Your task to perform on an android device: set the timer Image 0: 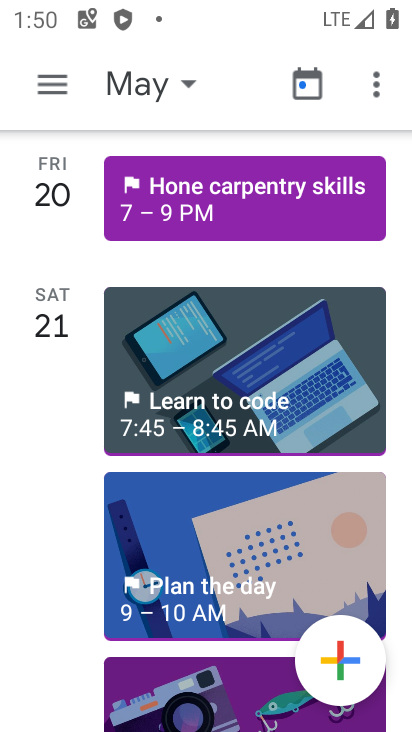
Step 0: press home button
Your task to perform on an android device: set the timer Image 1: 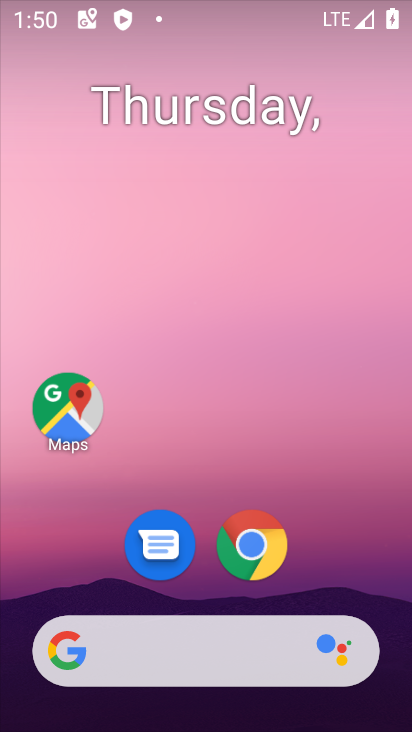
Step 1: click (401, 630)
Your task to perform on an android device: set the timer Image 2: 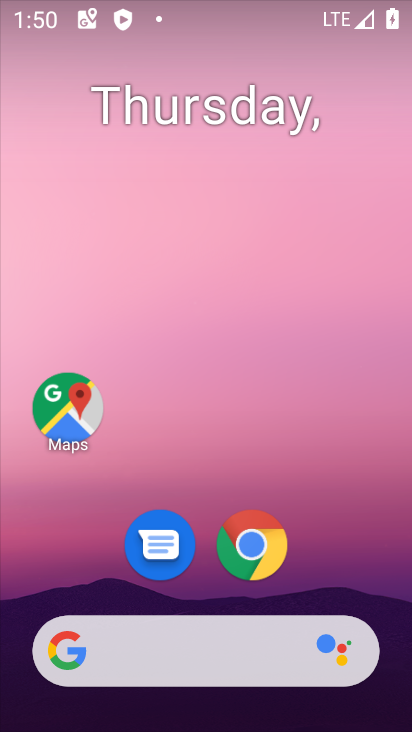
Step 2: drag from (252, 721) to (173, 23)
Your task to perform on an android device: set the timer Image 3: 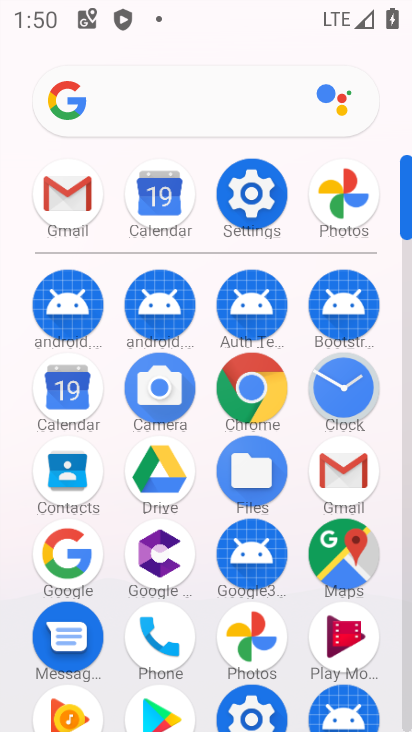
Step 3: click (360, 397)
Your task to perform on an android device: set the timer Image 4: 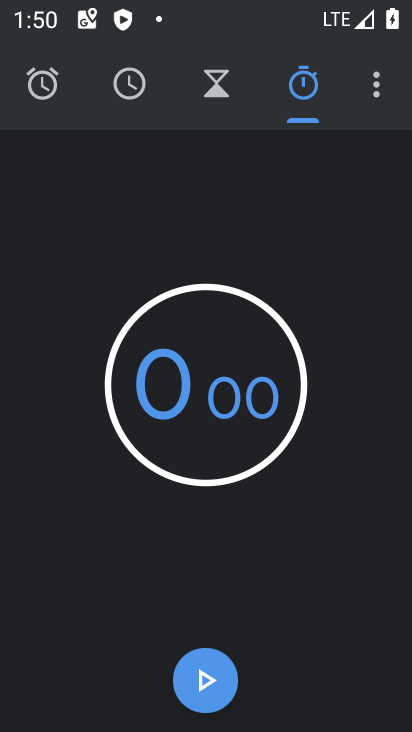
Step 4: click (211, 81)
Your task to perform on an android device: set the timer Image 5: 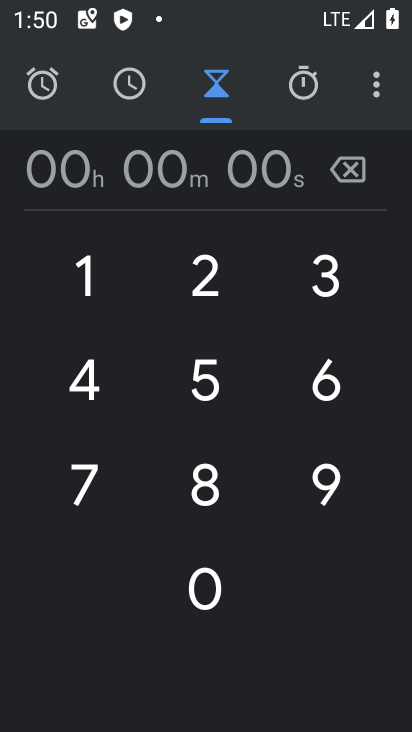
Step 5: click (203, 287)
Your task to perform on an android device: set the timer Image 6: 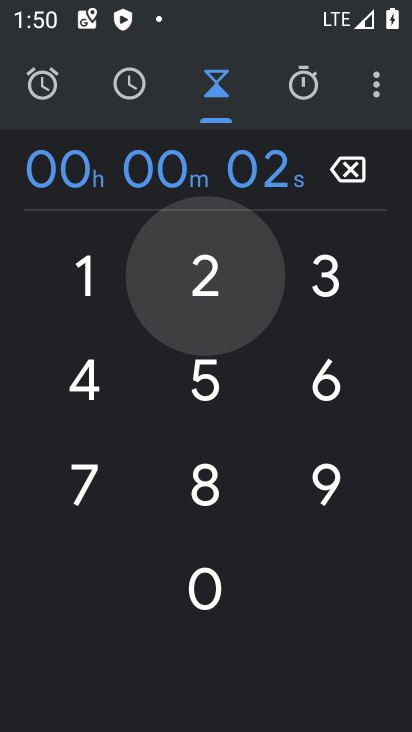
Step 6: click (208, 373)
Your task to perform on an android device: set the timer Image 7: 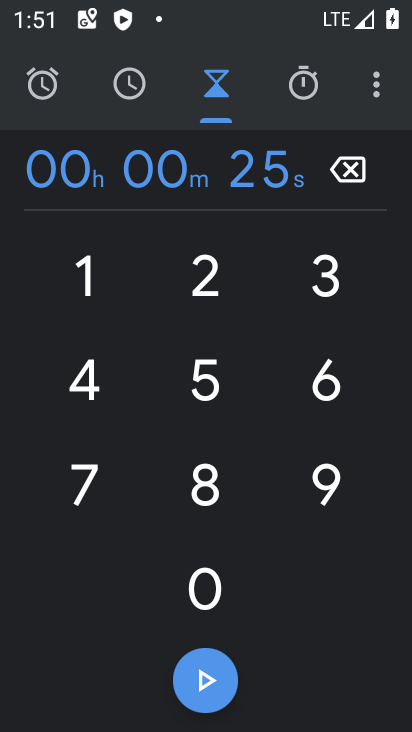
Step 7: click (322, 288)
Your task to perform on an android device: set the timer Image 8: 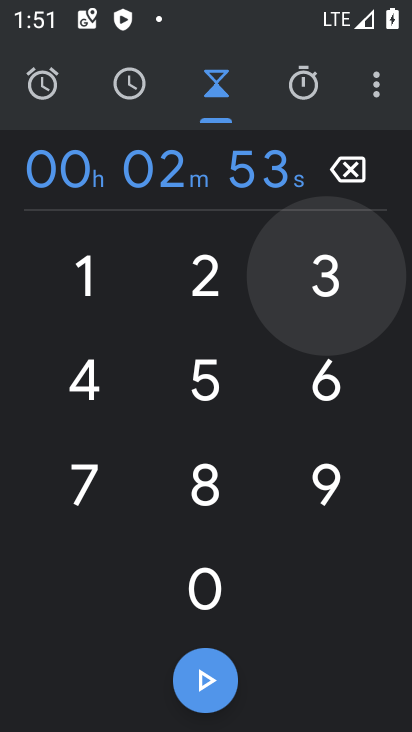
Step 8: click (336, 363)
Your task to perform on an android device: set the timer Image 9: 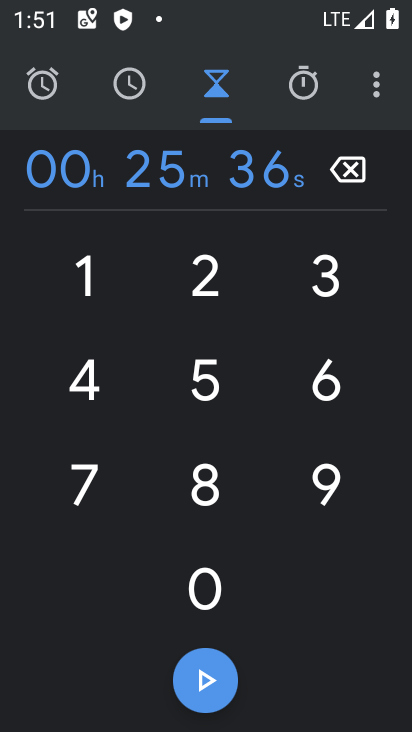
Step 9: task complete